Your task to perform on an android device: Open Chrome and go to the settings page Image 0: 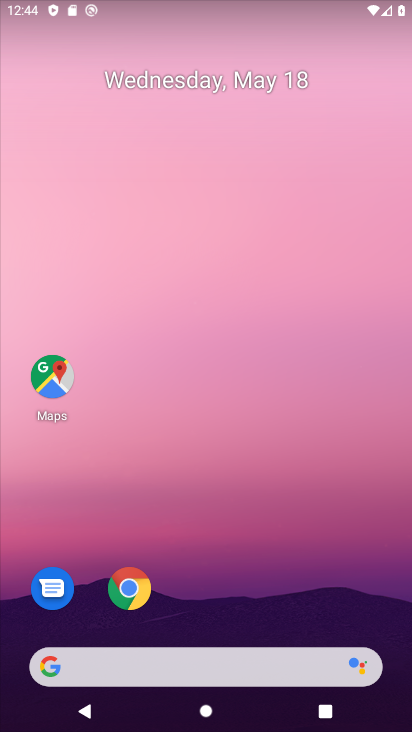
Step 0: drag from (369, 613) to (368, 154)
Your task to perform on an android device: Open Chrome and go to the settings page Image 1: 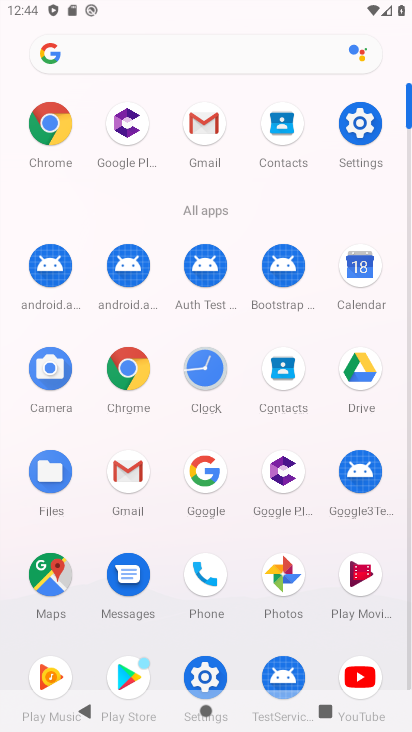
Step 1: click (138, 383)
Your task to perform on an android device: Open Chrome and go to the settings page Image 2: 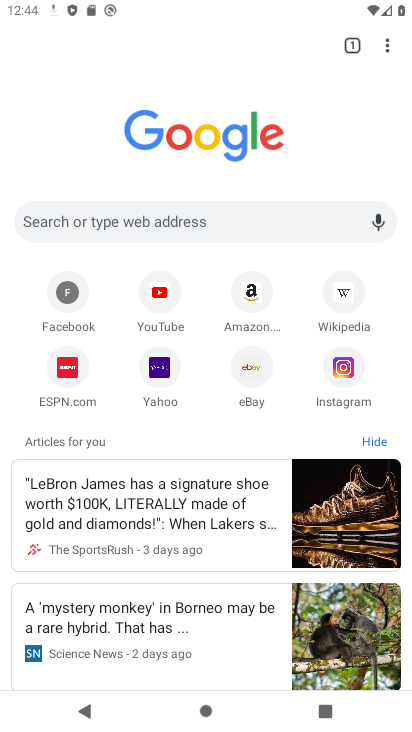
Step 2: click (389, 54)
Your task to perform on an android device: Open Chrome and go to the settings page Image 3: 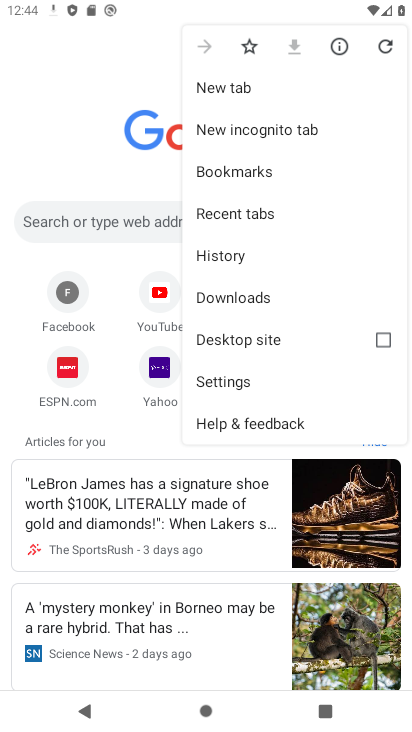
Step 3: click (251, 386)
Your task to perform on an android device: Open Chrome and go to the settings page Image 4: 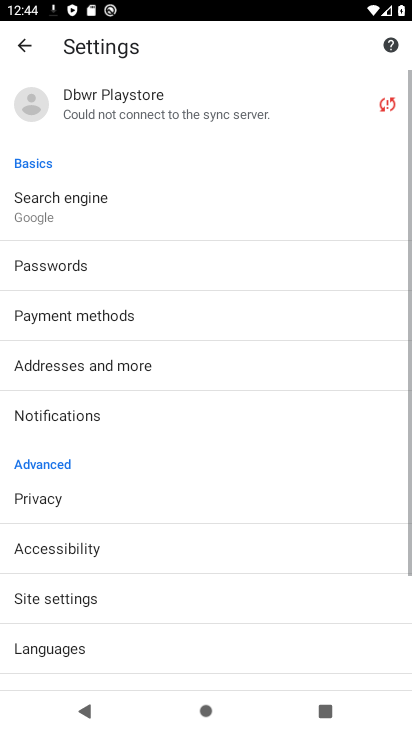
Step 4: task complete